Your task to perform on an android device: Search for vegetarian restaurants on Maps Image 0: 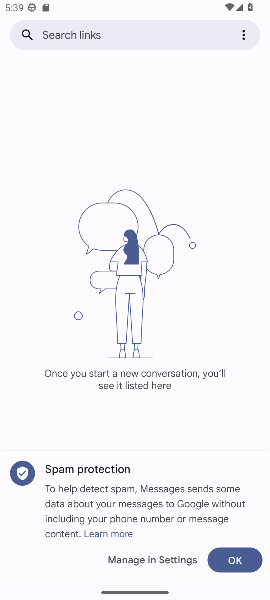
Step 0: press home button
Your task to perform on an android device: Search for vegetarian restaurants on Maps Image 1: 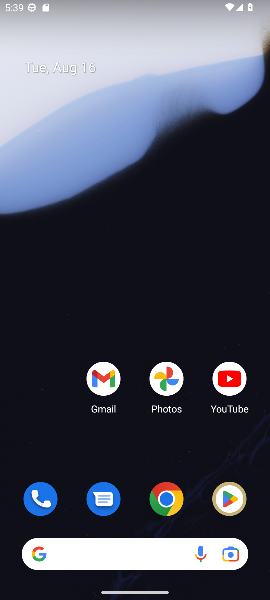
Step 1: drag from (136, 507) to (60, 4)
Your task to perform on an android device: Search for vegetarian restaurants on Maps Image 2: 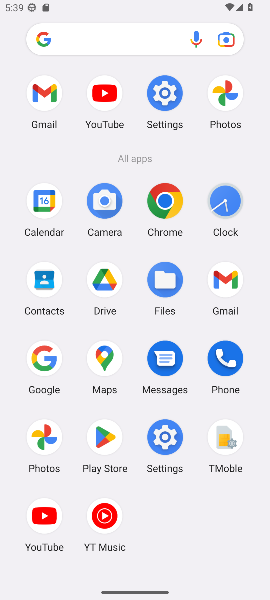
Step 2: click (106, 362)
Your task to perform on an android device: Search for vegetarian restaurants on Maps Image 3: 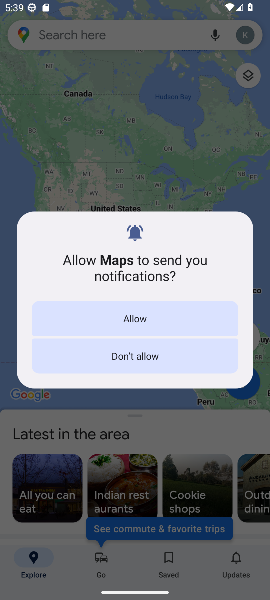
Step 3: click (119, 323)
Your task to perform on an android device: Search for vegetarian restaurants on Maps Image 4: 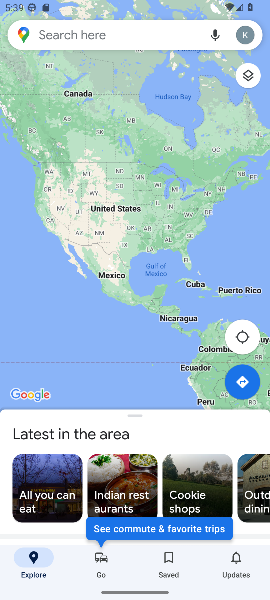
Step 4: click (64, 36)
Your task to perform on an android device: Search for vegetarian restaurants on Maps Image 5: 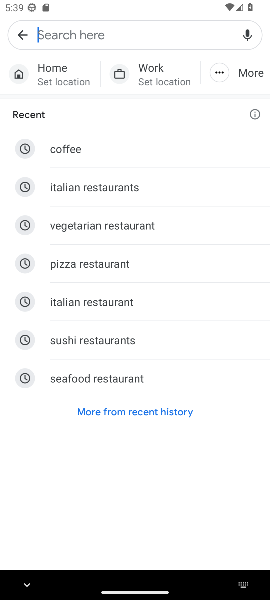
Step 5: click (85, 232)
Your task to perform on an android device: Search for vegetarian restaurants on Maps Image 6: 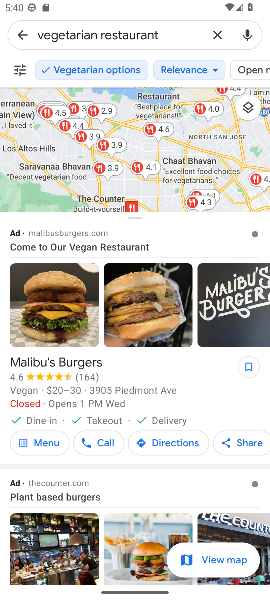
Step 6: task complete